Your task to perform on an android device: Show me popular videos on Youtube Image 0: 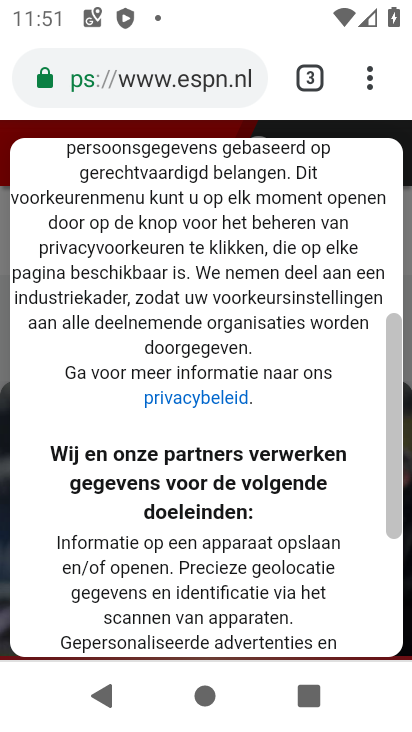
Step 0: press home button
Your task to perform on an android device: Show me popular videos on Youtube Image 1: 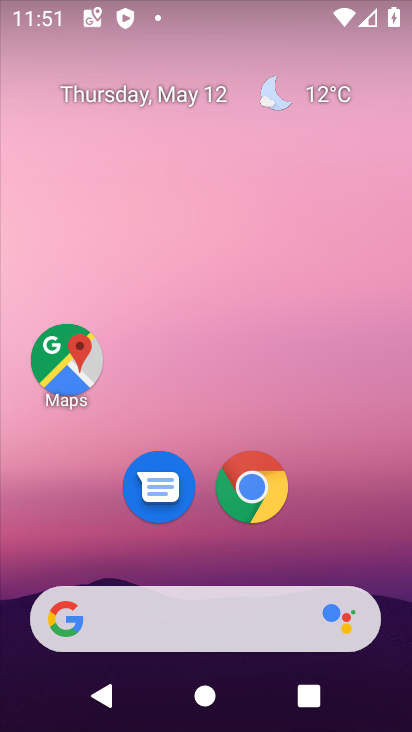
Step 1: drag from (356, 574) to (309, 29)
Your task to perform on an android device: Show me popular videos on Youtube Image 2: 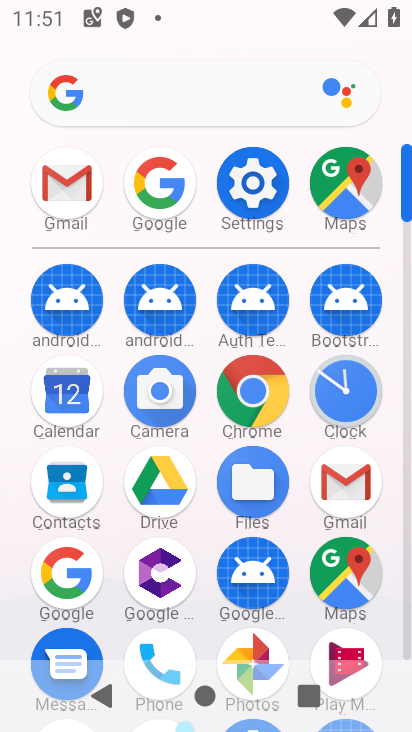
Step 2: click (405, 612)
Your task to perform on an android device: Show me popular videos on Youtube Image 3: 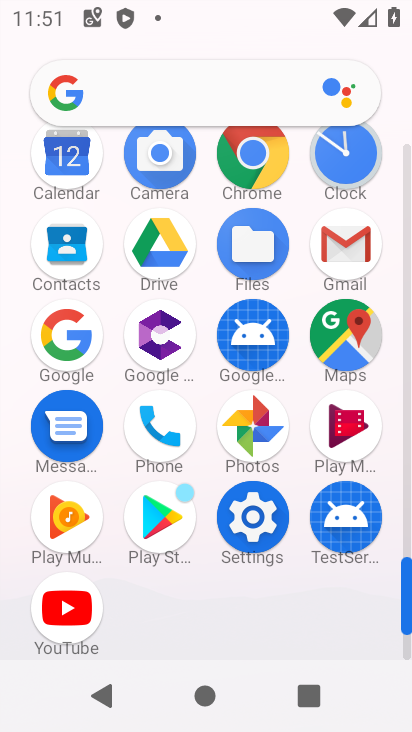
Step 3: click (64, 618)
Your task to perform on an android device: Show me popular videos on Youtube Image 4: 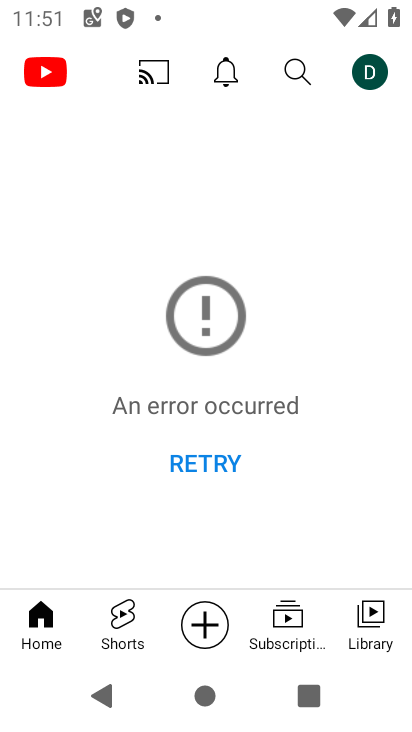
Step 4: click (45, 628)
Your task to perform on an android device: Show me popular videos on Youtube Image 5: 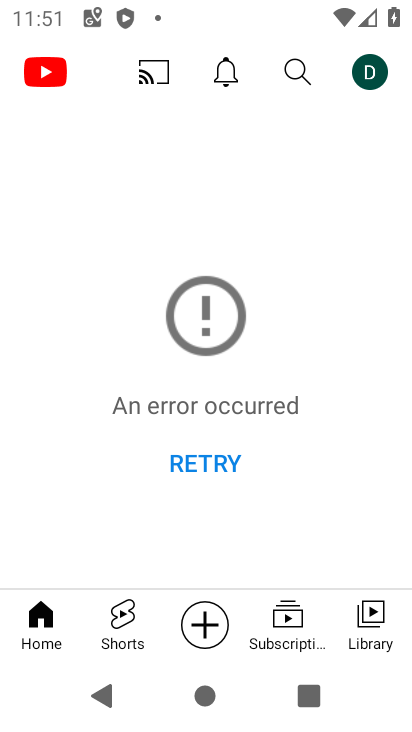
Step 5: click (200, 463)
Your task to perform on an android device: Show me popular videos on Youtube Image 6: 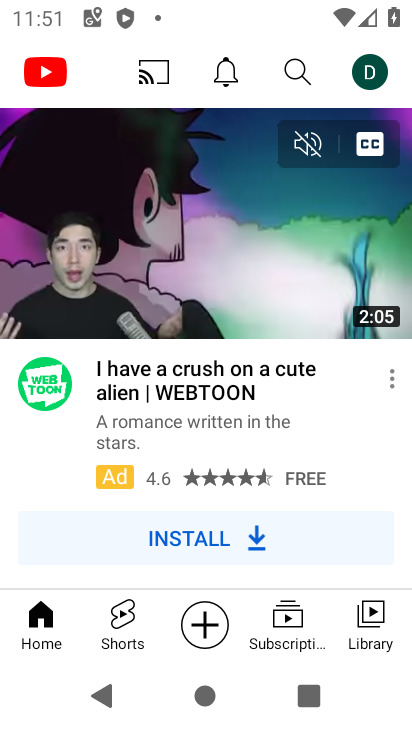
Step 6: task complete